Your task to perform on an android device: Search for seafood restaurants on Google Maps Image 0: 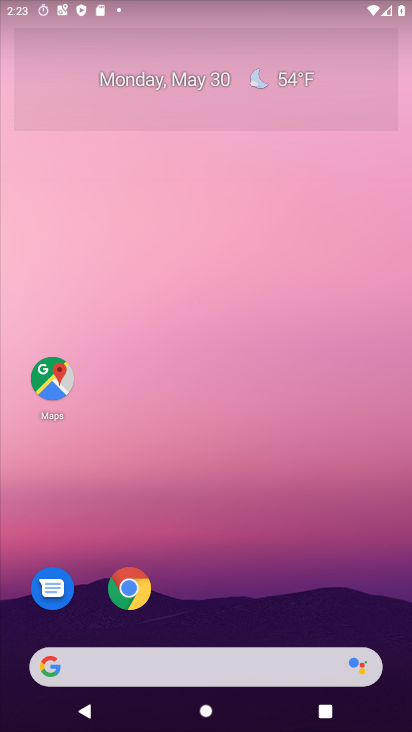
Step 0: drag from (235, 600) to (264, 35)
Your task to perform on an android device: Search for seafood restaurants on Google Maps Image 1: 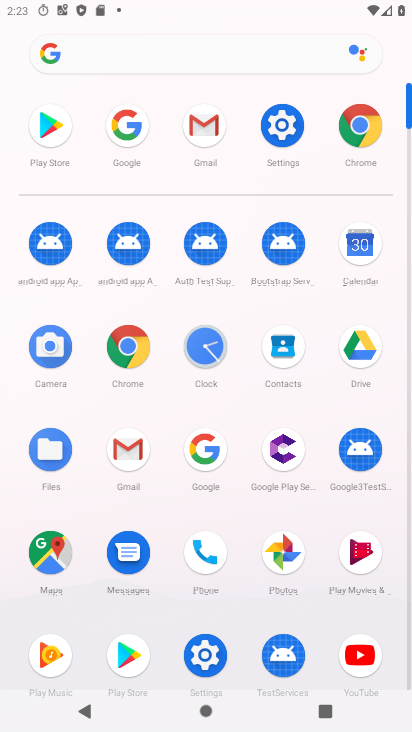
Step 1: click (39, 559)
Your task to perform on an android device: Search for seafood restaurants on Google Maps Image 2: 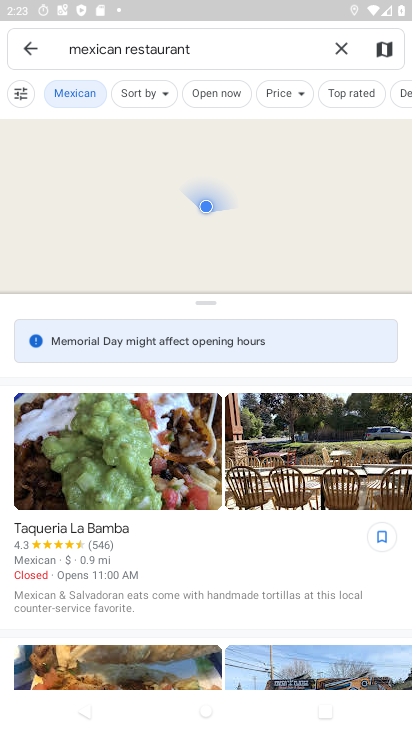
Step 2: click (242, 52)
Your task to perform on an android device: Search for seafood restaurants on Google Maps Image 3: 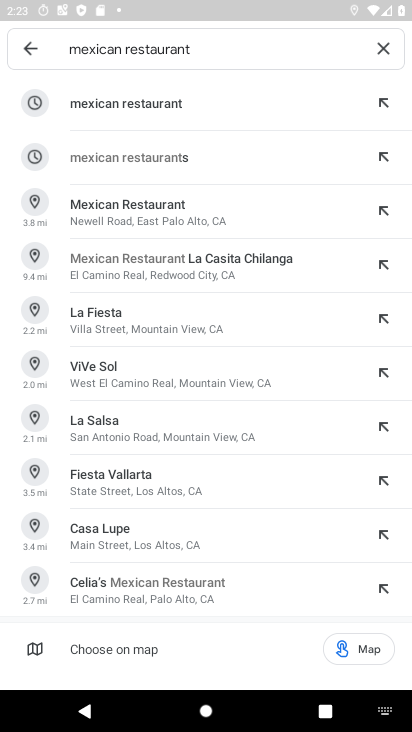
Step 3: click (377, 41)
Your task to perform on an android device: Search for seafood restaurants on Google Maps Image 4: 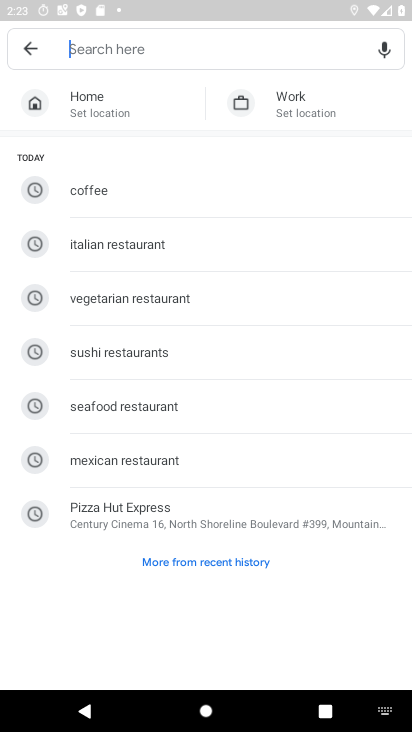
Step 4: click (150, 407)
Your task to perform on an android device: Search for seafood restaurants on Google Maps Image 5: 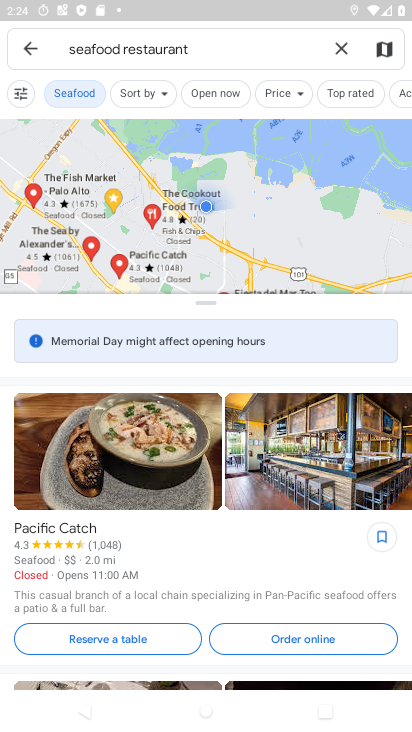
Step 5: task complete